Your task to perform on an android device: Open Google Maps Image 0: 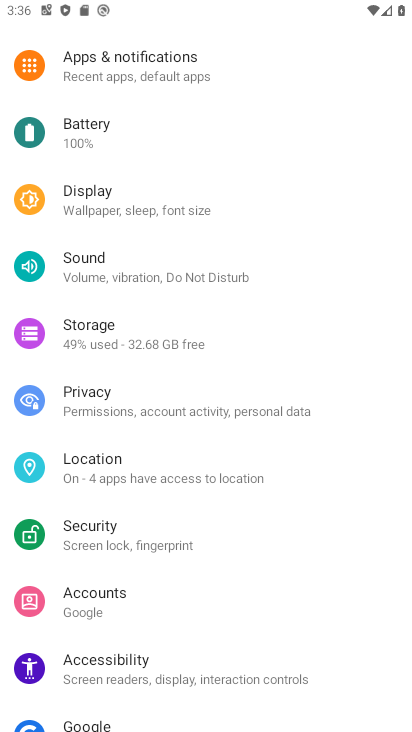
Step 0: press home button
Your task to perform on an android device: Open Google Maps Image 1: 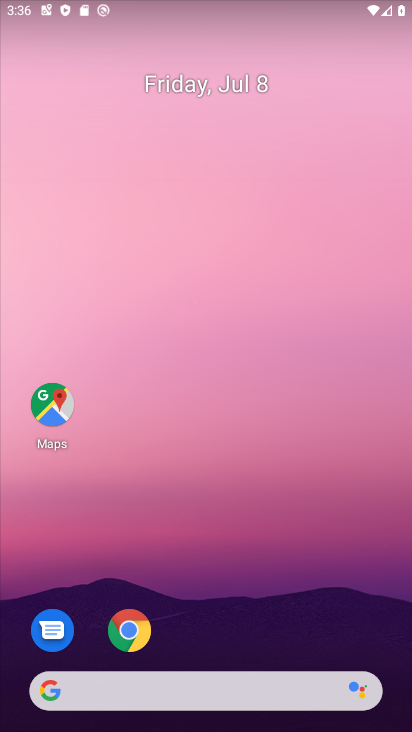
Step 1: click (59, 408)
Your task to perform on an android device: Open Google Maps Image 2: 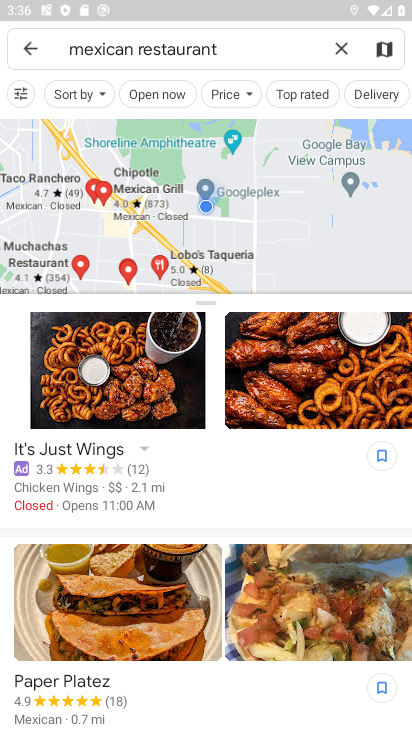
Step 2: click (24, 44)
Your task to perform on an android device: Open Google Maps Image 3: 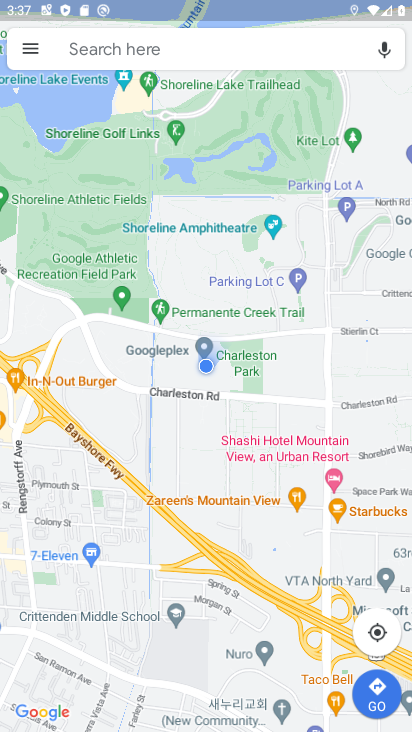
Step 3: task complete